Your task to perform on an android device: Open network settings Image 0: 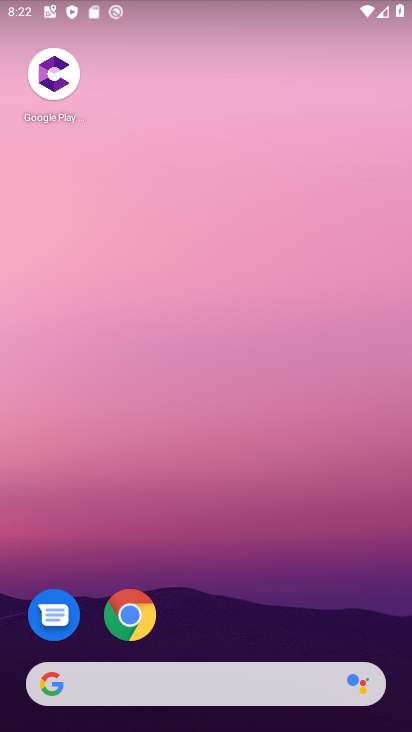
Step 0: drag from (197, 643) to (166, 227)
Your task to perform on an android device: Open network settings Image 1: 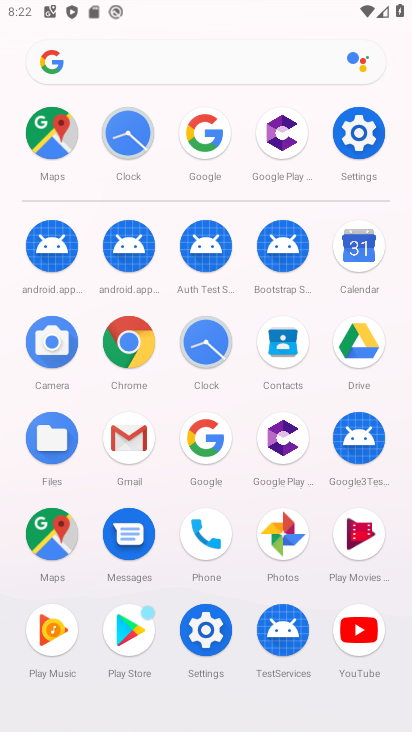
Step 1: click (338, 144)
Your task to perform on an android device: Open network settings Image 2: 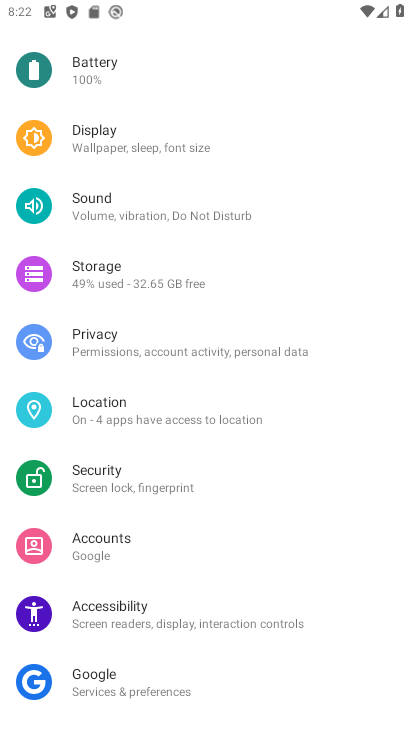
Step 2: drag from (231, 130) to (268, 495)
Your task to perform on an android device: Open network settings Image 3: 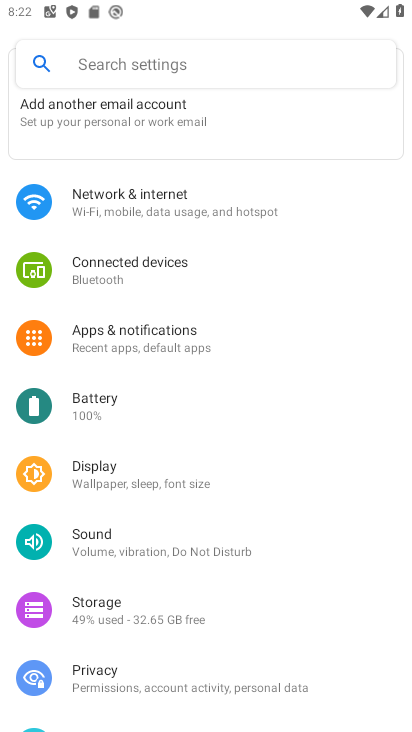
Step 3: click (176, 212)
Your task to perform on an android device: Open network settings Image 4: 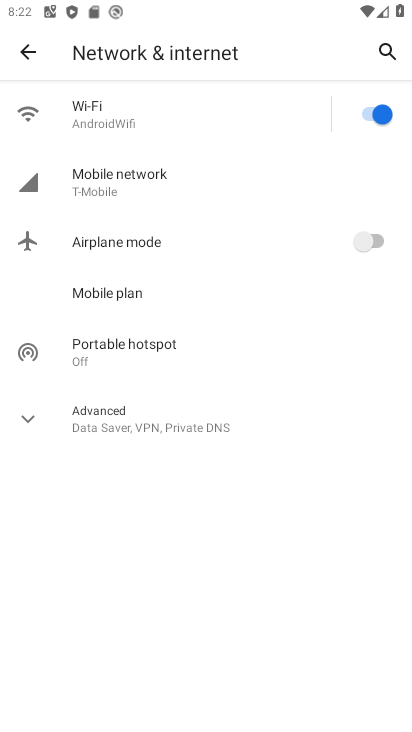
Step 4: task complete